Your task to perform on an android device: move a message to another label in the gmail app Image 0: 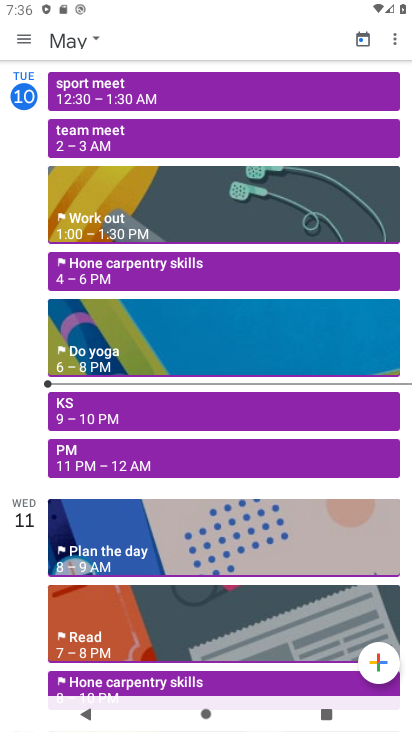
Step 0: press home button
Your task to perform on an android device: move a message to another label in the gmail app Image 1: 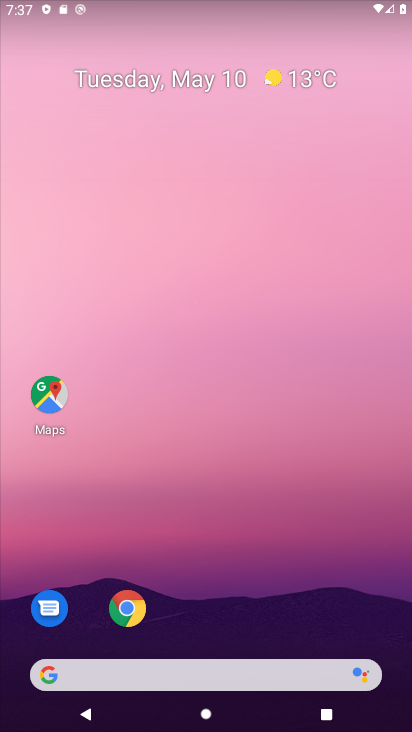
Step 1: drag from (212, 668) to (331, 155)
Your task to perform on an android device: move a message to another label in the gmail app Image 2: 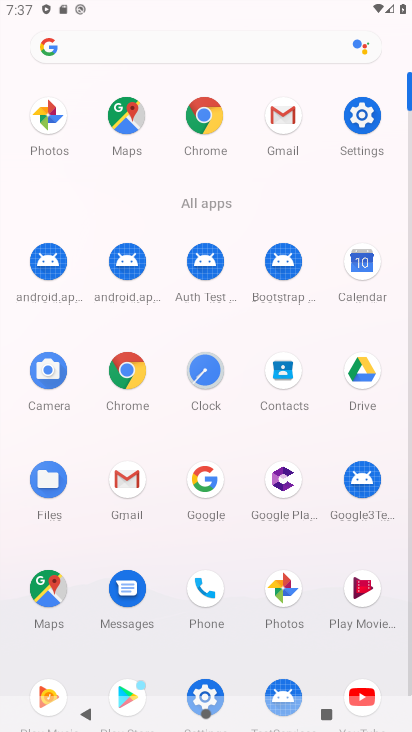
Step 2: click (284, 122)
Your task to perform on an android device: move a message to another label in the gmail app Image 3: 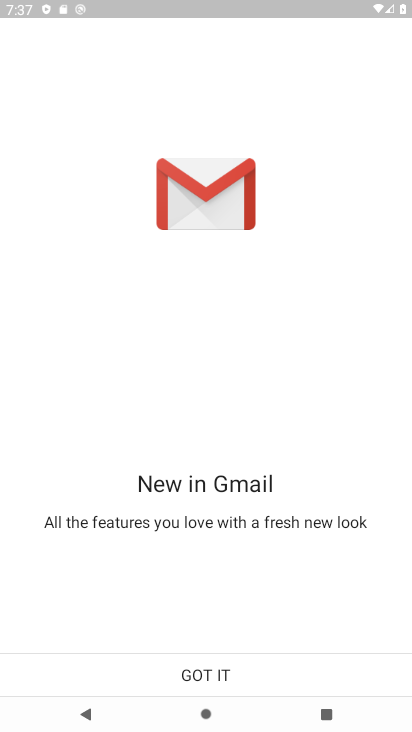
Step 3: click (212, 673)
Your task to perform on an android device: move a message to another label in the gmail app Image 4: 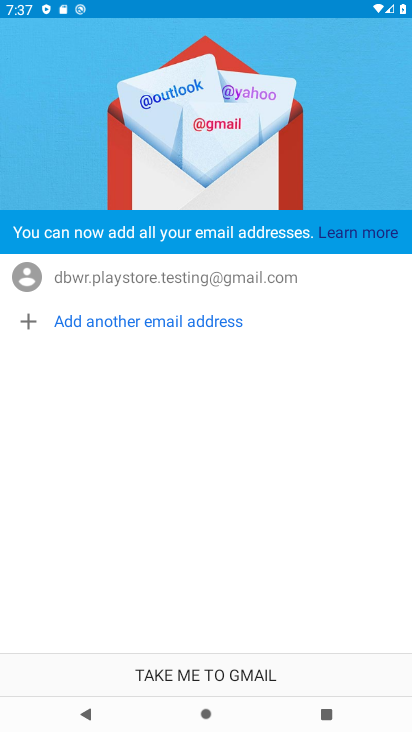
Step 4: click (212, 673)
Your task to perform on an android device: move a message to another label in the gmail app Image 5: 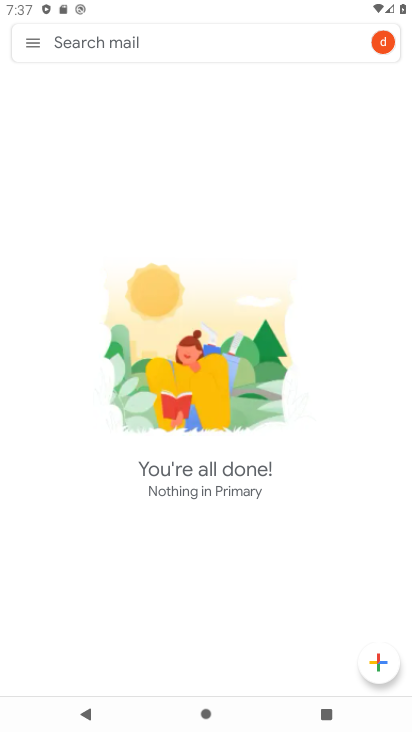
Step 5: task complete